Your task to perform on an android device: turn off sleep mode Image 0: 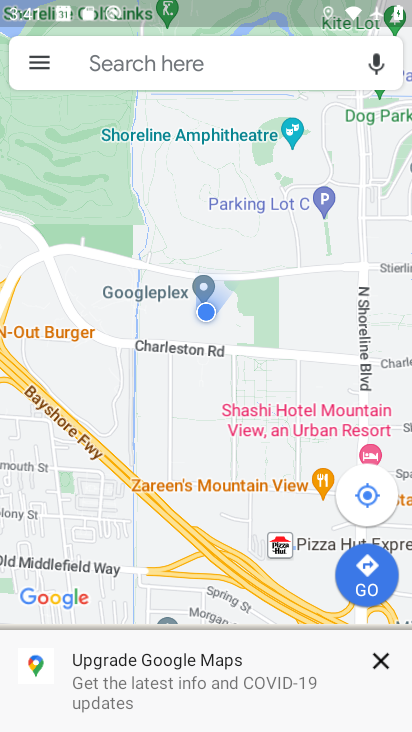
Step 0: press home button
Your task to perform on an android device: turn off sleep mode Image 1: 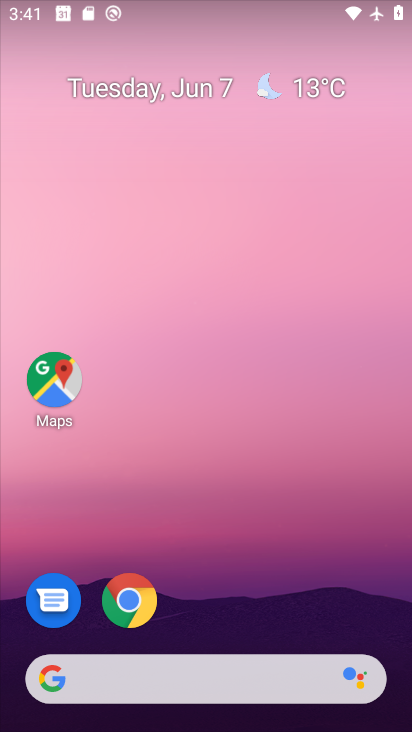
Step 1: drag from (303, 523) to (289, 173)
Your task to perform on an android device: turn off sleep mode Image 2: 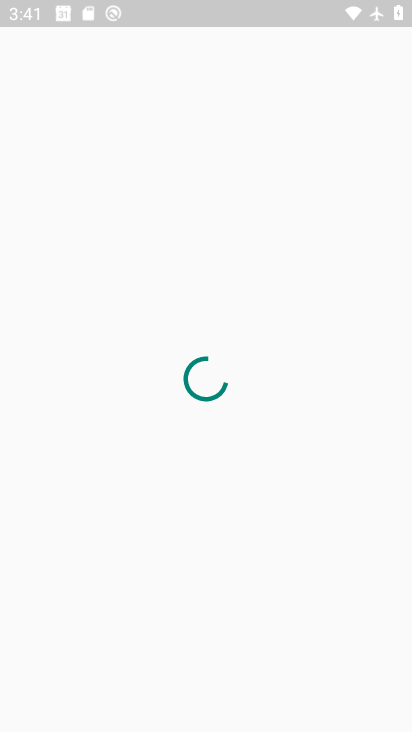
Step 2: click (45, 148)
Your task to perform on an android device: turn off sleep mode Image 3: 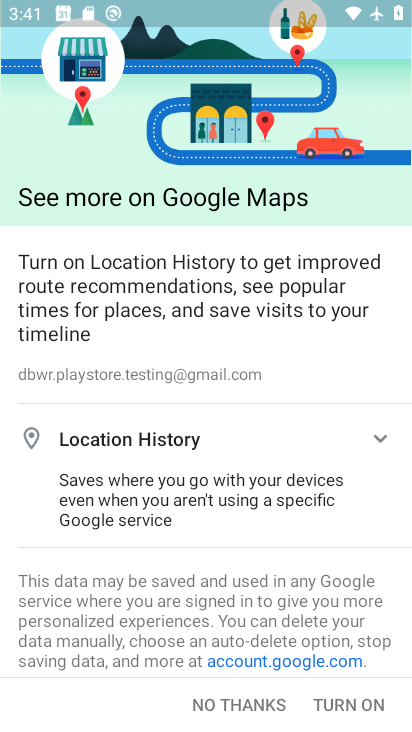
Step 3: click (237, 687)
Your task to perform on an android device: turn off sleep mode Image 4: 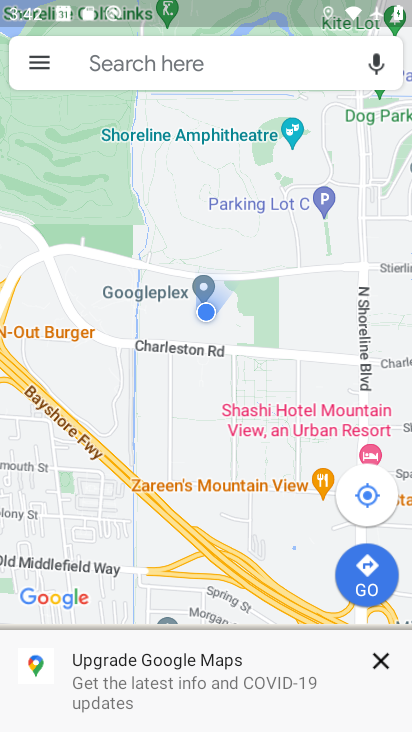
Step 4: click (36, 61)
Your task to perform on an android device: turn off sleep mode Image 5: 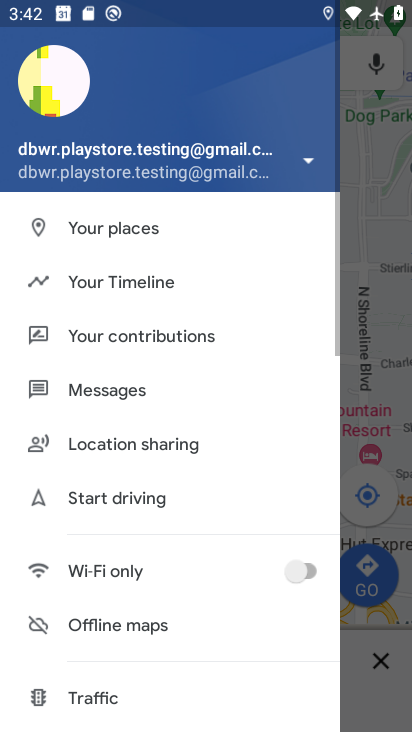
Step 5: drag from (201, 577) to (242, 219)
Your task to perform on an android device: turn off sleep mode Image 6: 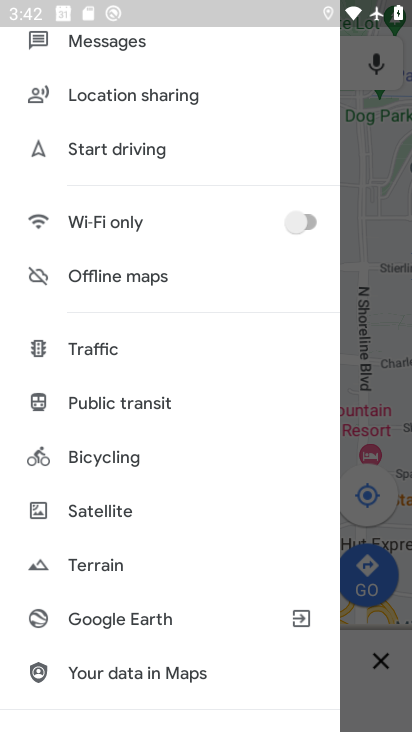
Step 6: press home button
Your task to perform on an android device: turn off sleep mode Image 7: 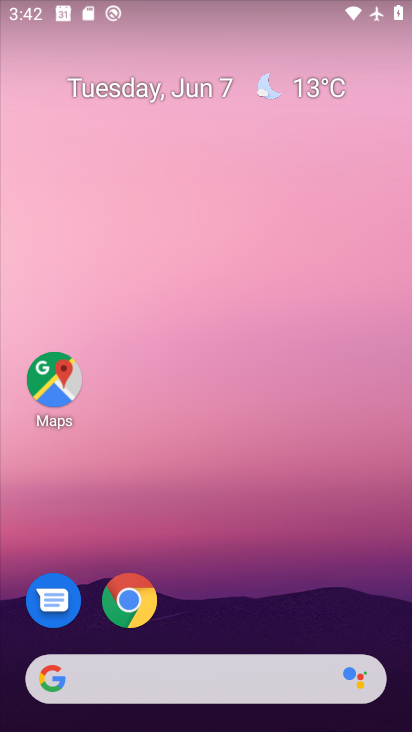
Step 7: drag from (260, 572) to (314, 103)
Your task to perform on an android device: turn off sleep mode Image 8: 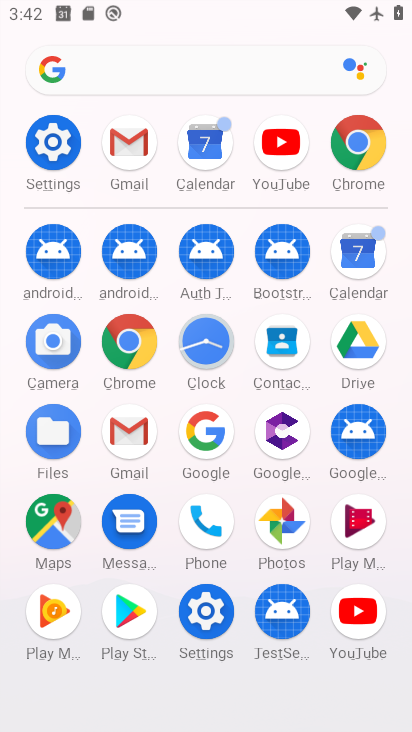
Step 8: click (47, 147)
Your task to perform on an android device: turn off sleep mode Image 9: 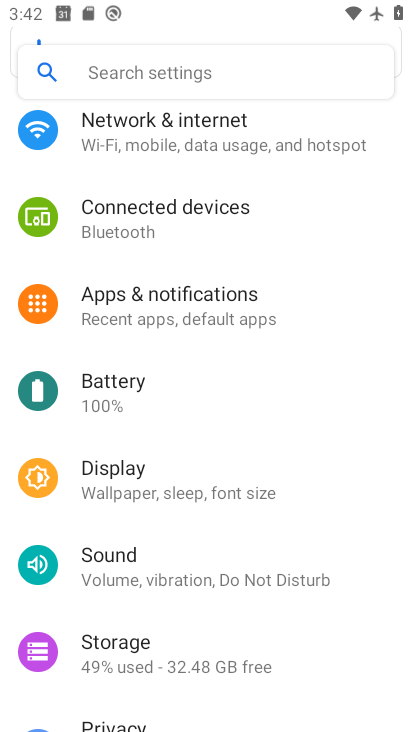
Step 9: click (175, 501)
Your task to perform on an android device: turn off sleep mode Image 10: 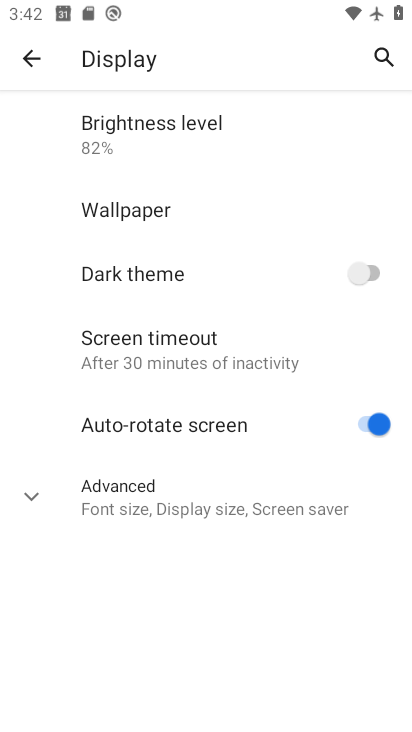
Step 10: click (179, 351)
Your task to perform on an android device: turn off sleep mode Image 11: 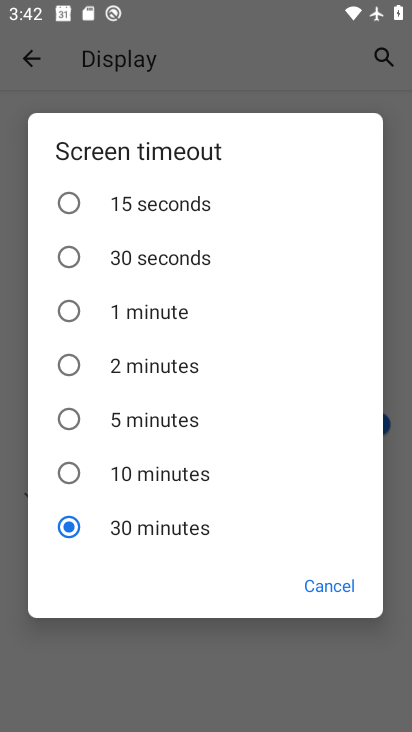
Step 11: task complete